Your task to perform on an android device: show emergency info Image 0: 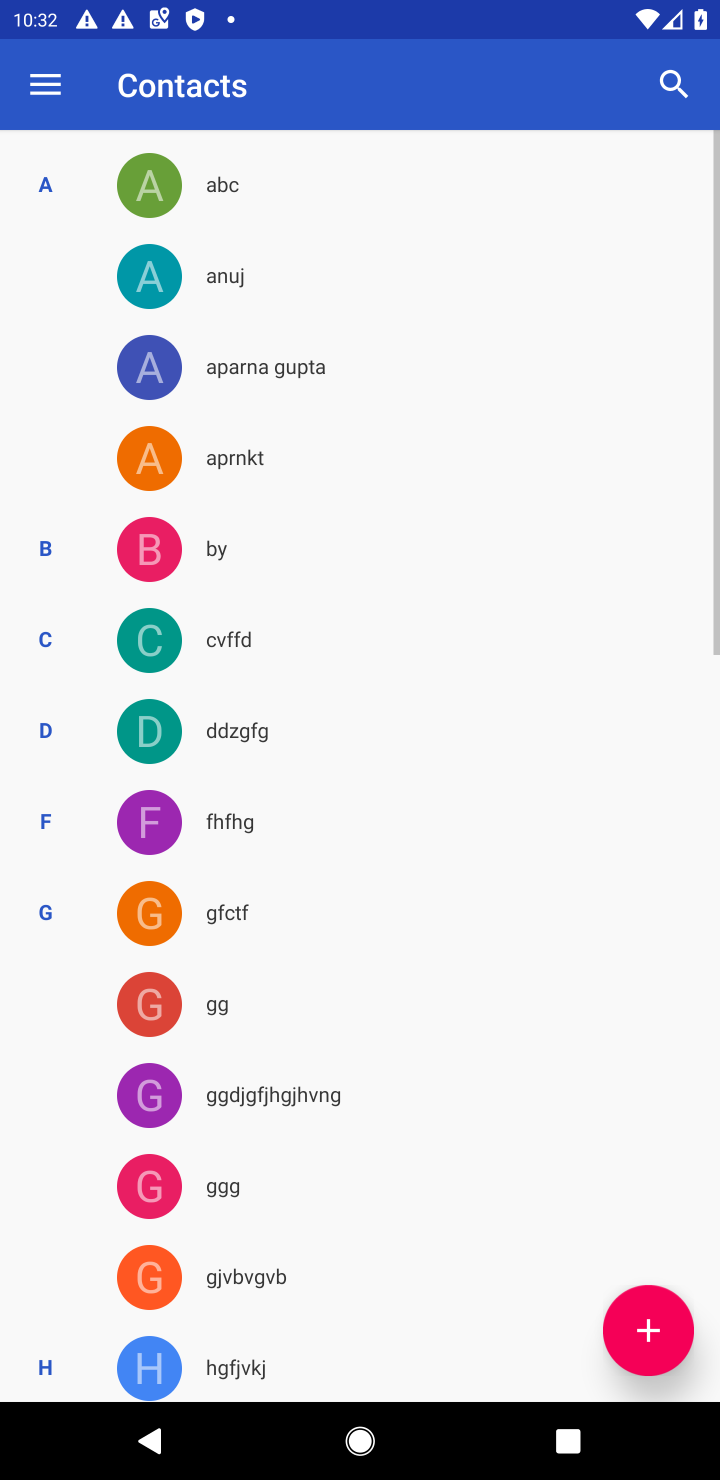
Step 0: press home button
Your task to perform on an android device: show emergency info Image 1: 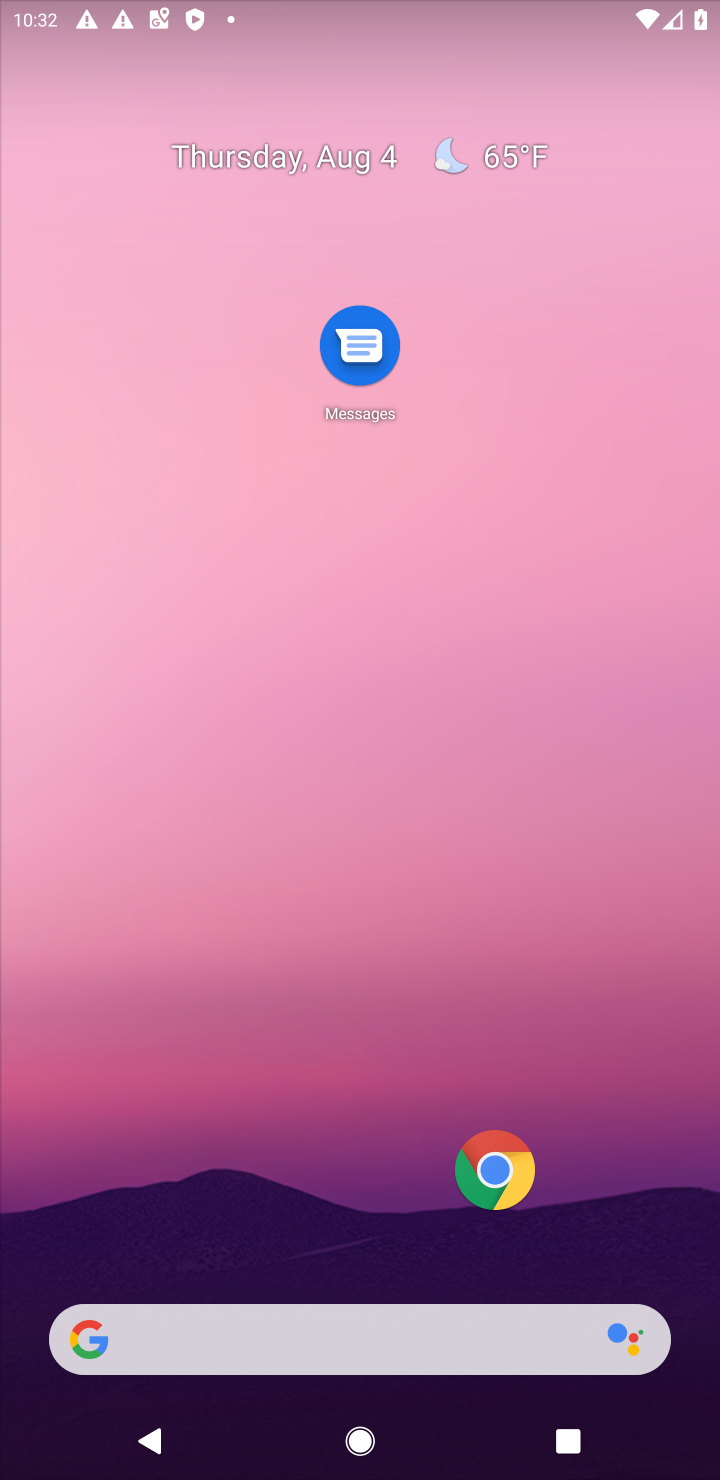
Step 1: drag from (384, 651) to (439, 54)
Your task to perform on an android device: show emergency info Image 2: 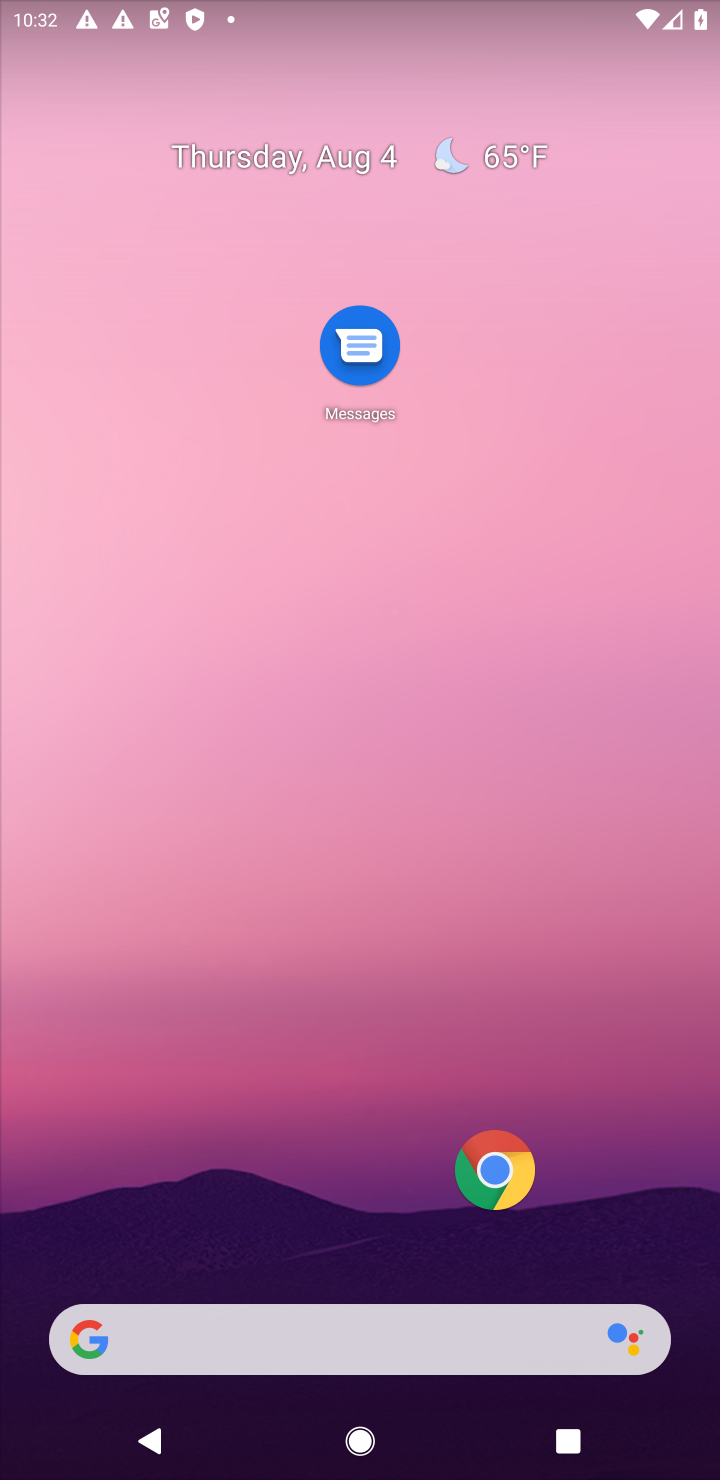
Step 2: drag from (363, 1086) to (453, 197)
Your task to perform on an android device: show emergency info Image 3: 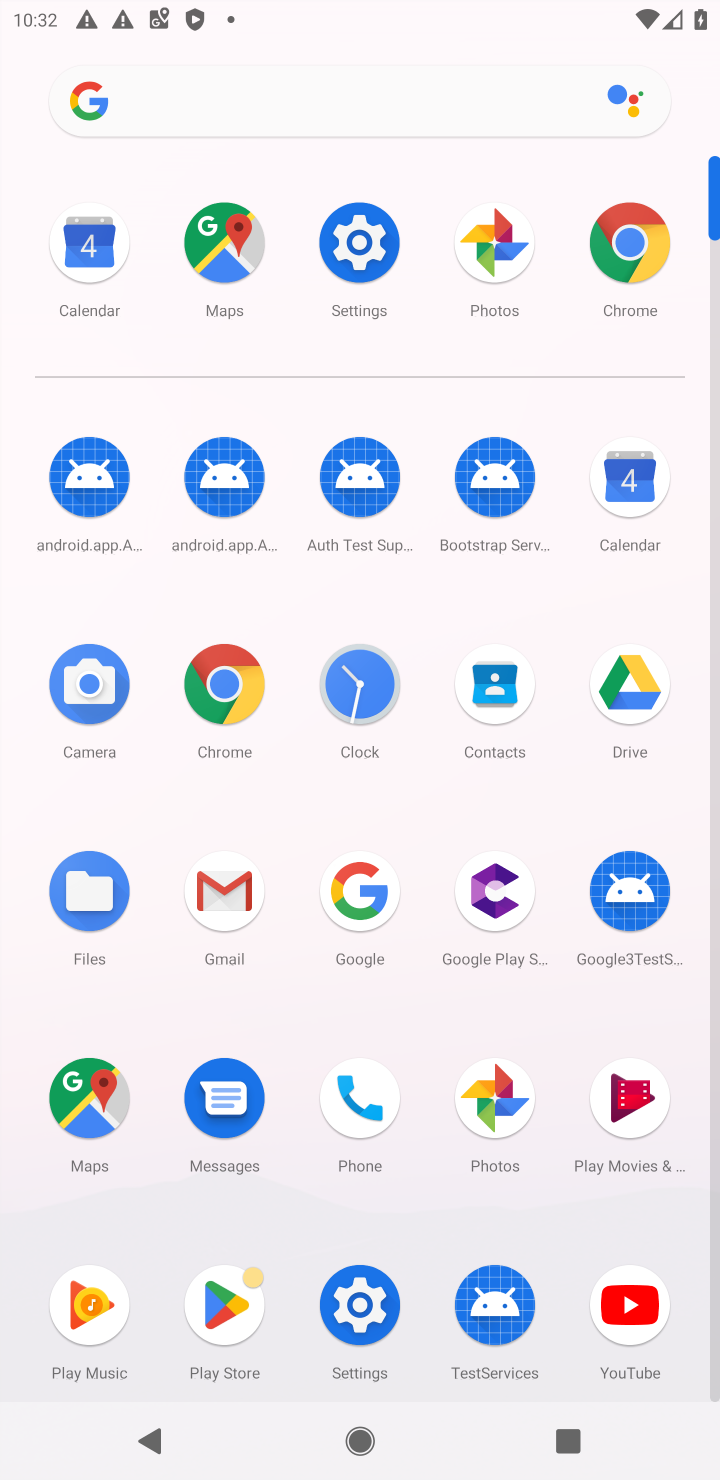
Step 3: click (352, 245)
Your task to perform on an android device: show emergency info Image 4: 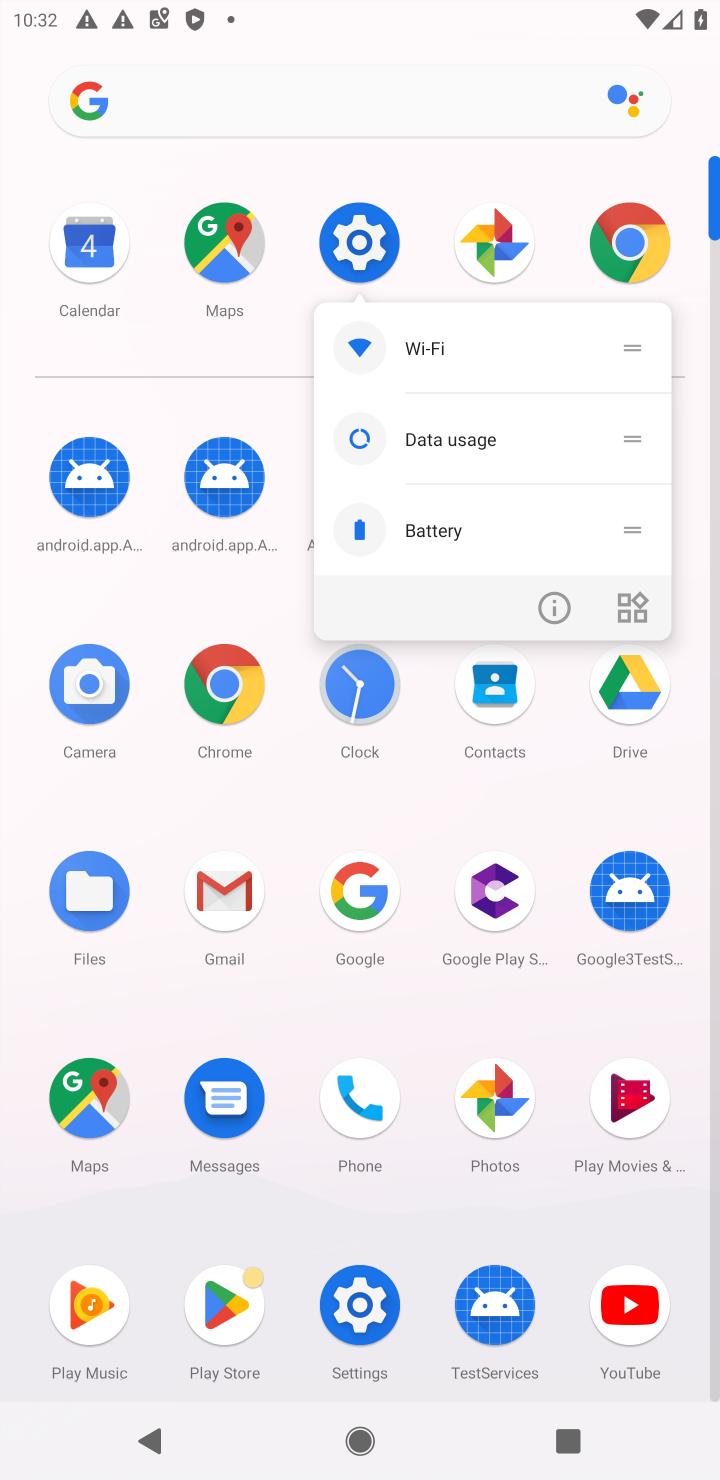
Step 4: click (344, 240)
Your task to perform on an android device: show emergency info Image 5: 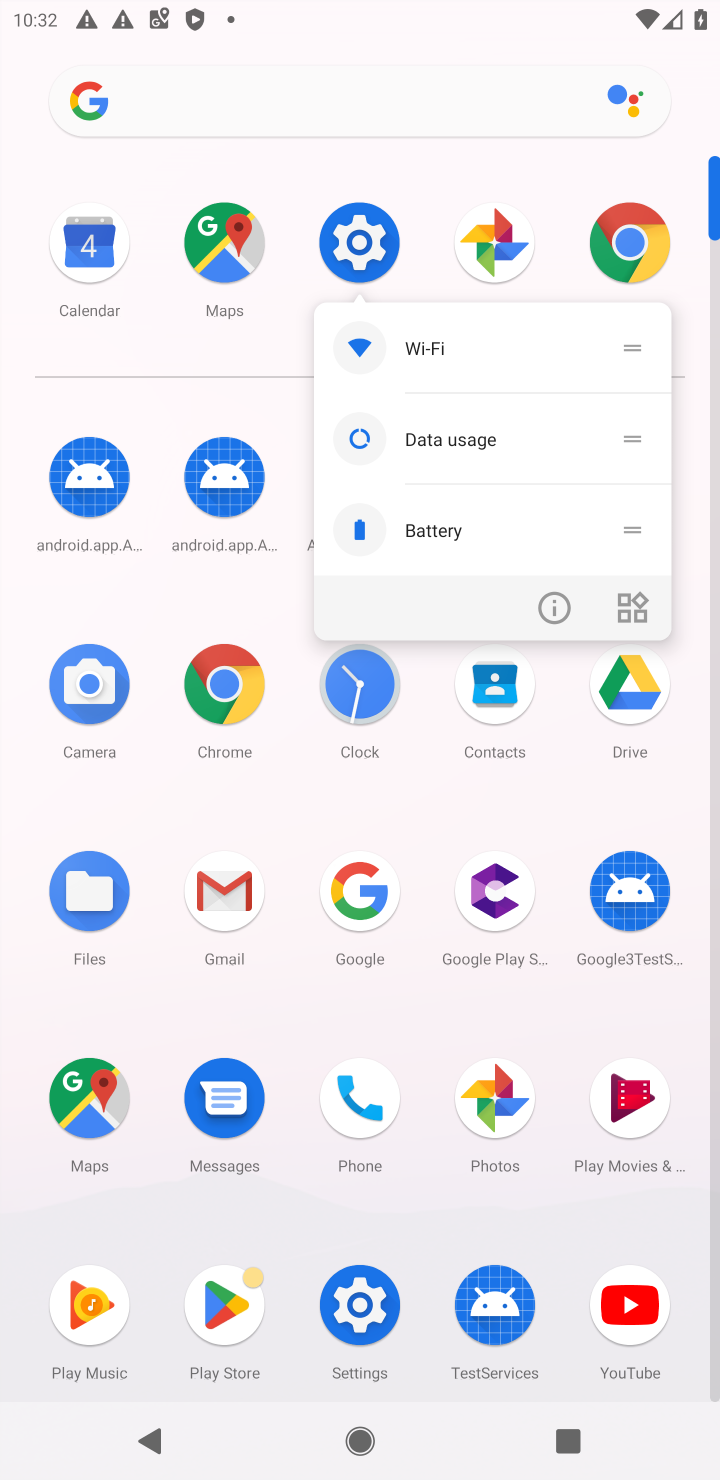
Step 5: click (349, 231)
Your task to perform on an android device: show emergency info Image 6: 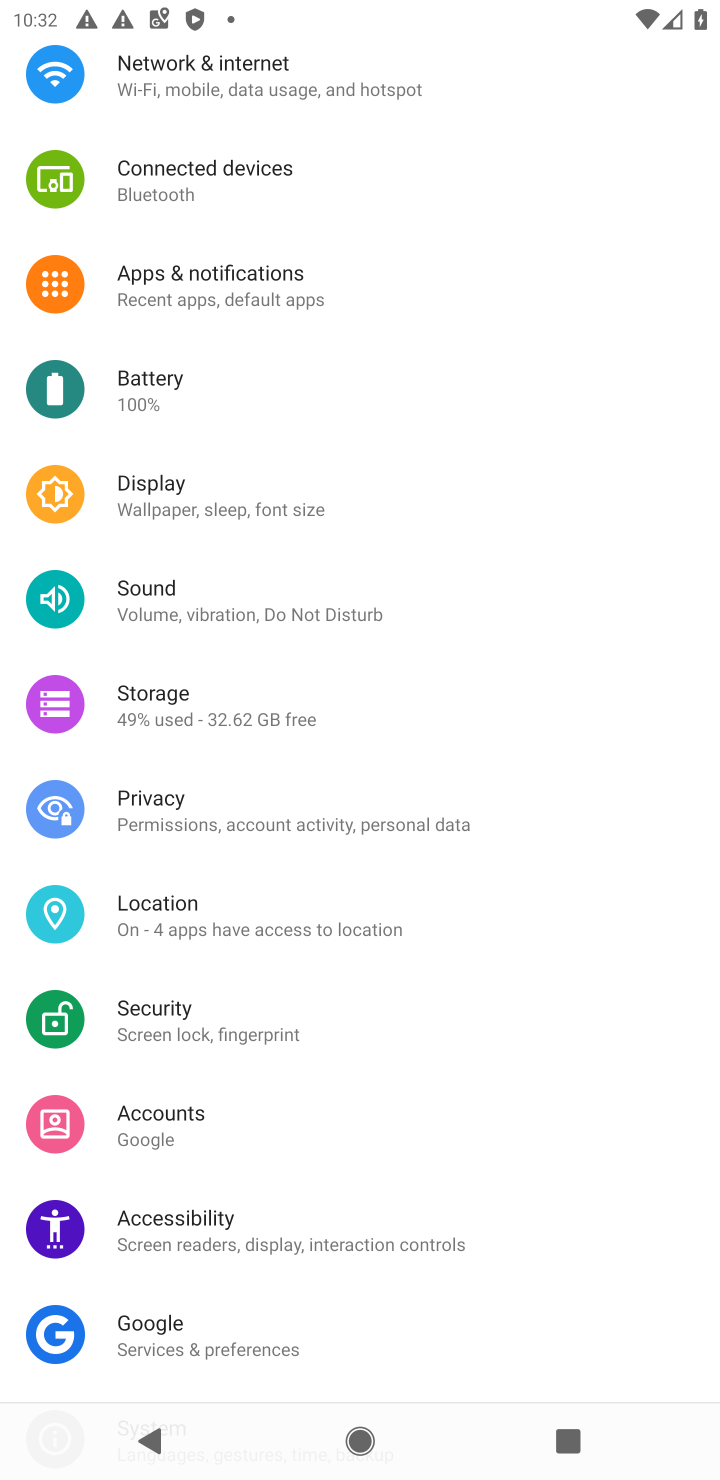
Step 6: drag from (303, 1192) to (426, 346)
Your task to perform on an android device: show emergency info Image 7: 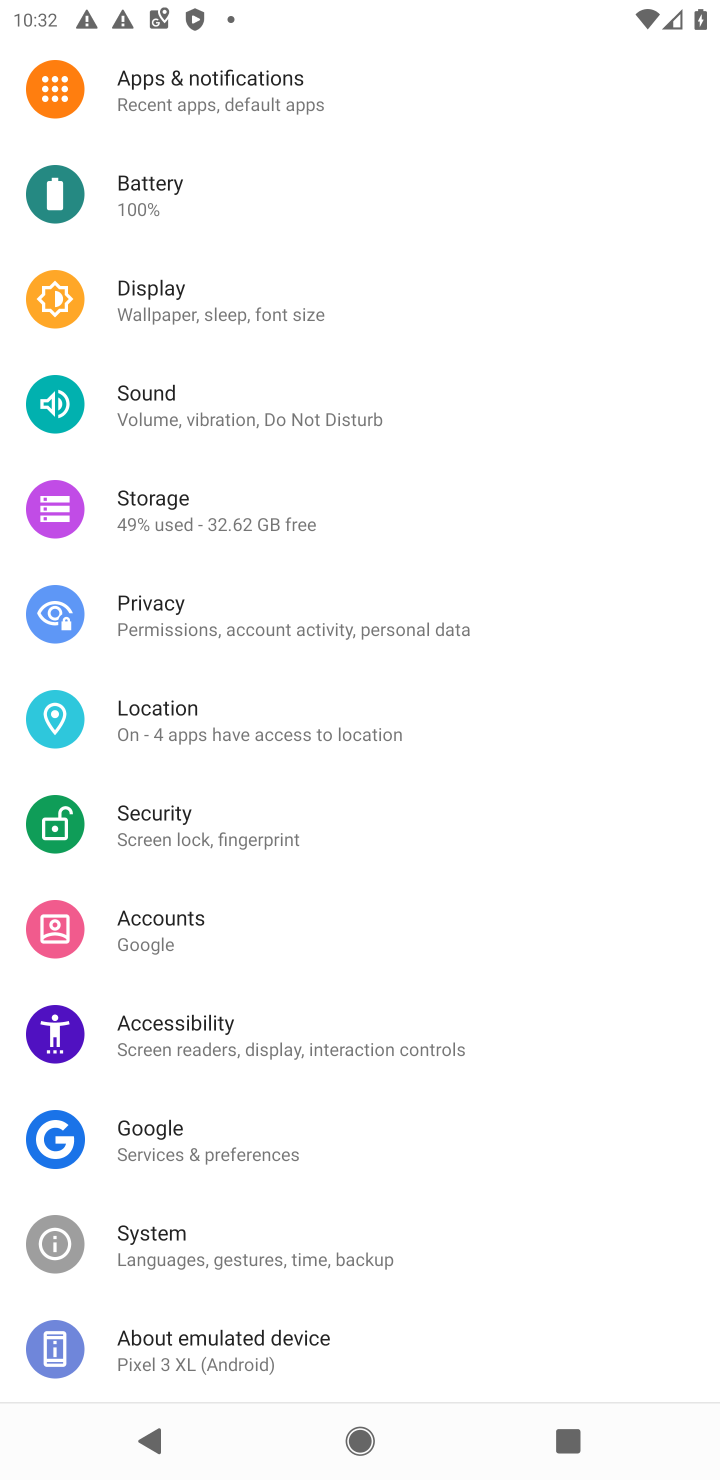
Step 7: drag from (175, 1337) to (331, 358)
Your task to perform on an android device: show emergency info Image 8: 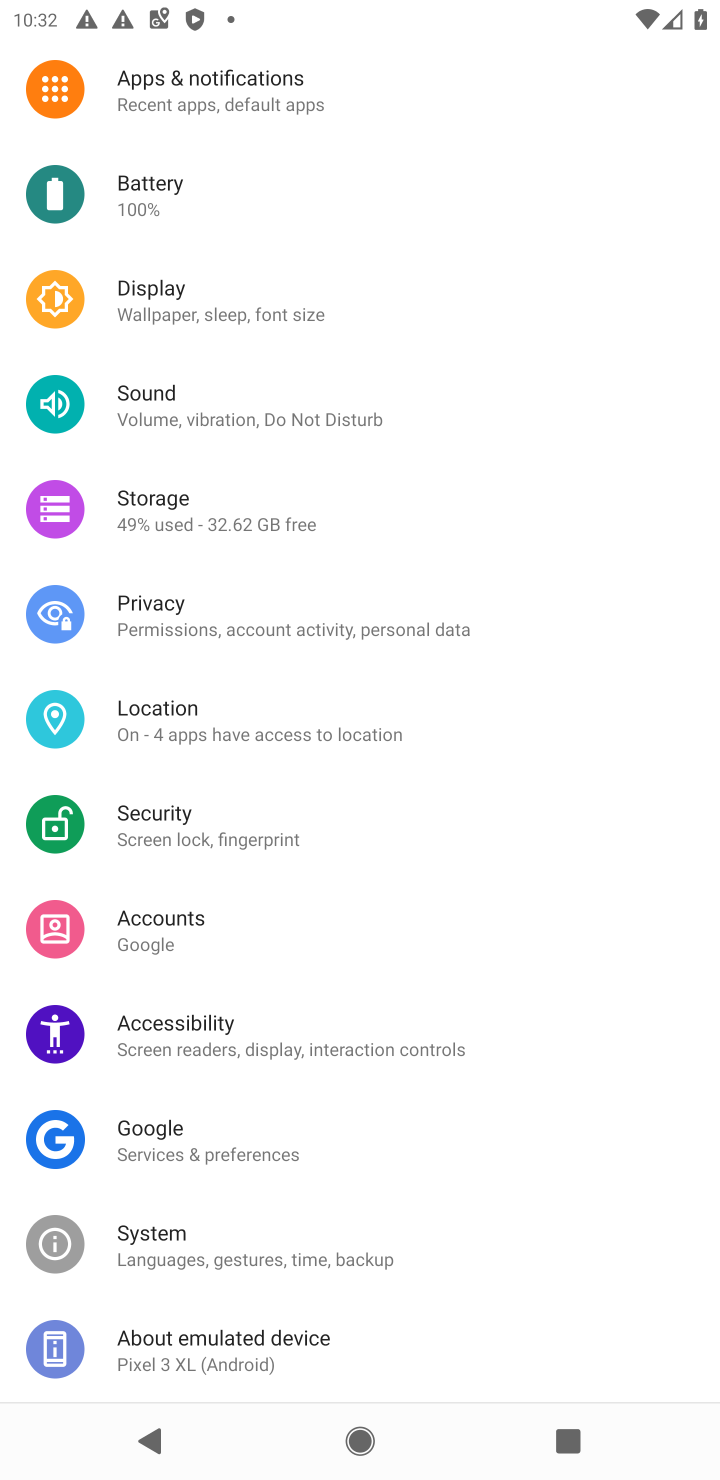
Step 8: click (224, 1351)
Your task to perform on an android device: show emergency info Image 9: 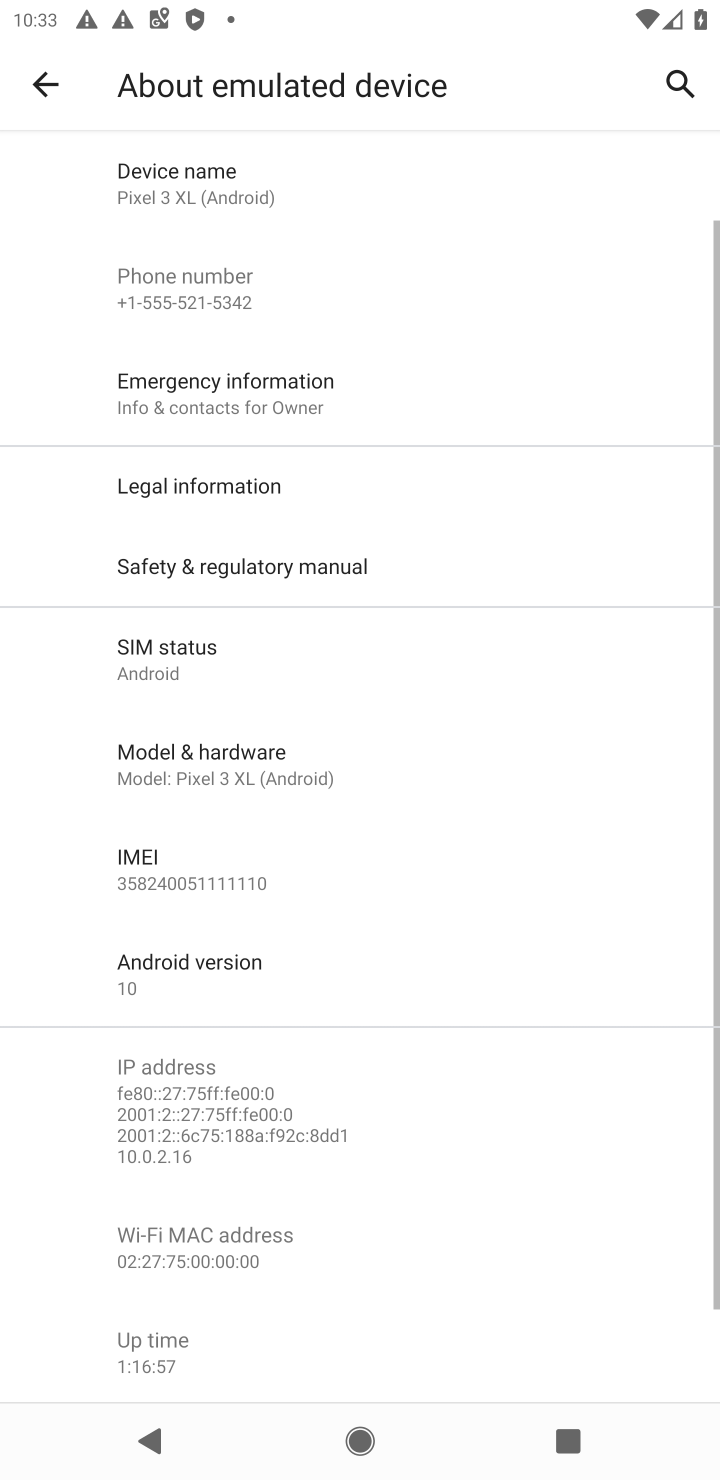
Step 9: click (256, 400)
Your task to perform on an android device: show emergency info Image 10: 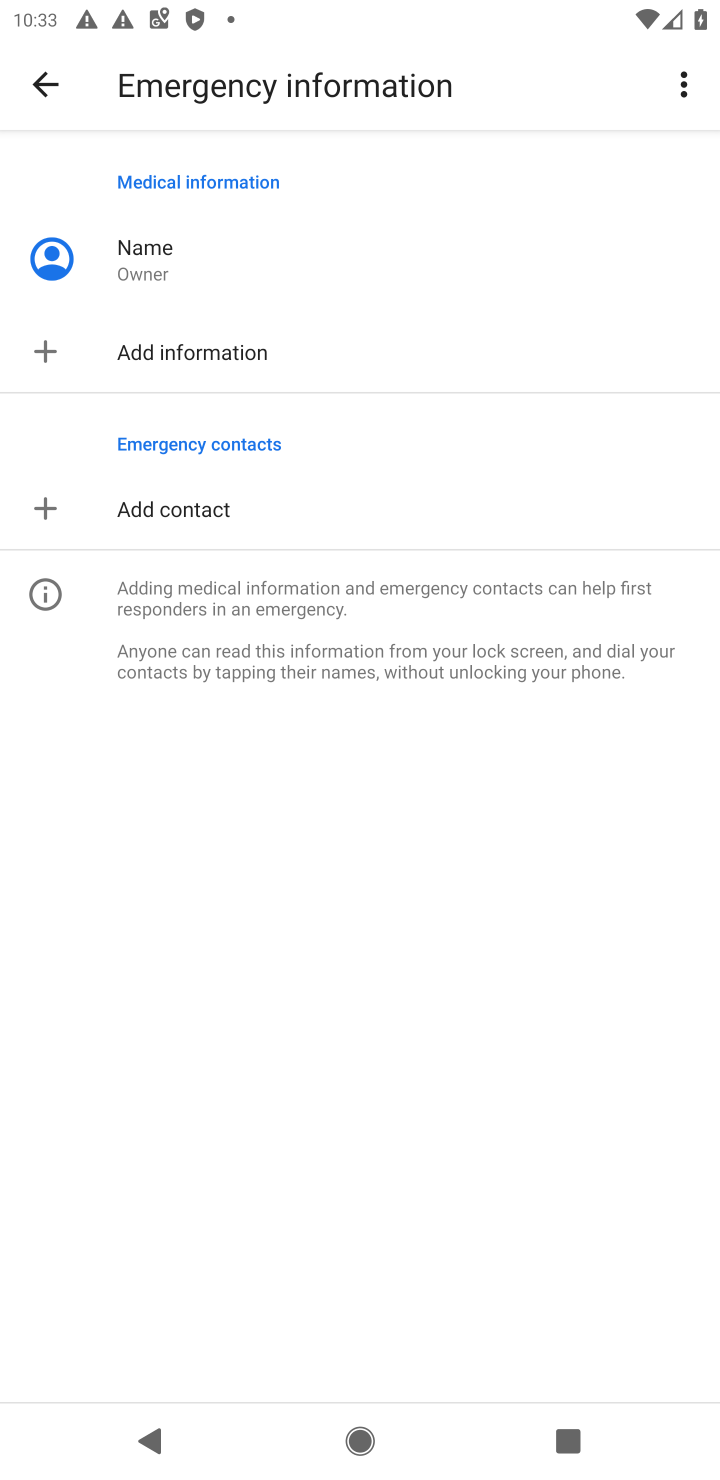
Step 10: task complete